Your task to perform on an android device: Go to Yahoo.com Image 0: 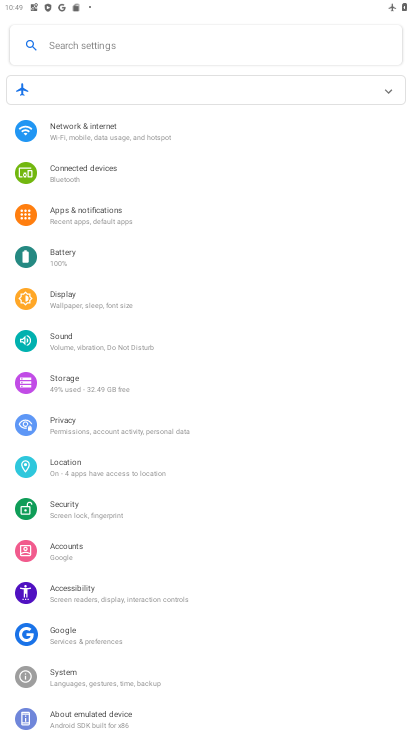
Step 0: press home button
Your task to perform on an android device: Go to Yahoo.com Image 1: 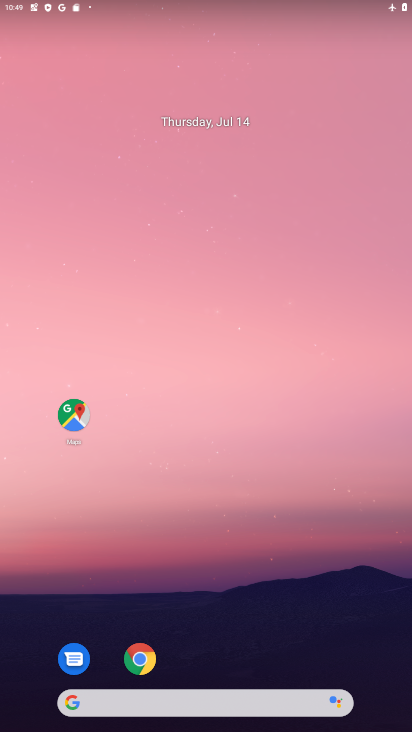
Step 1: drag from (320, 630) to (297, 192)
Your task to perform on an android device: Go to Yahoo.com Image 2: 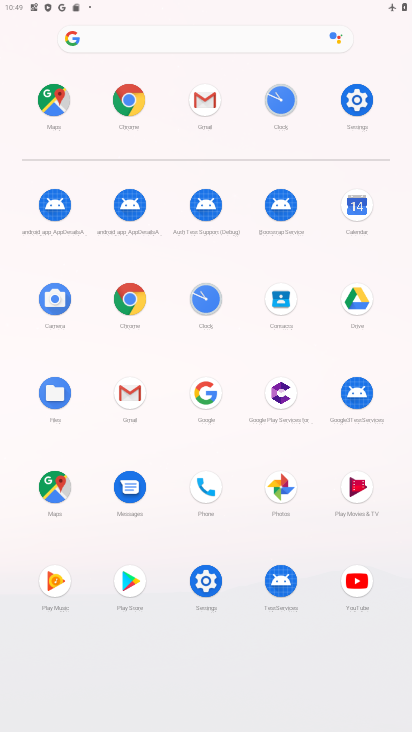
Step 2: click (128, 295)
Your task to perform on an android device: Go to Yahoo.com Image 3: 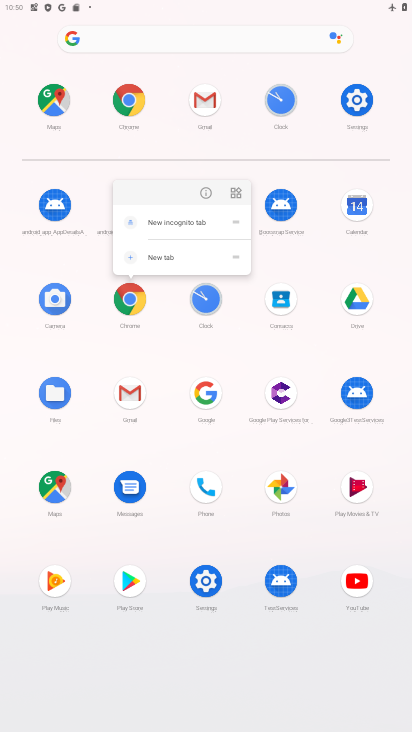
Step 3: click (128, 295)
Your task to perform on an android device: Go to Yahoo.com Image 4: 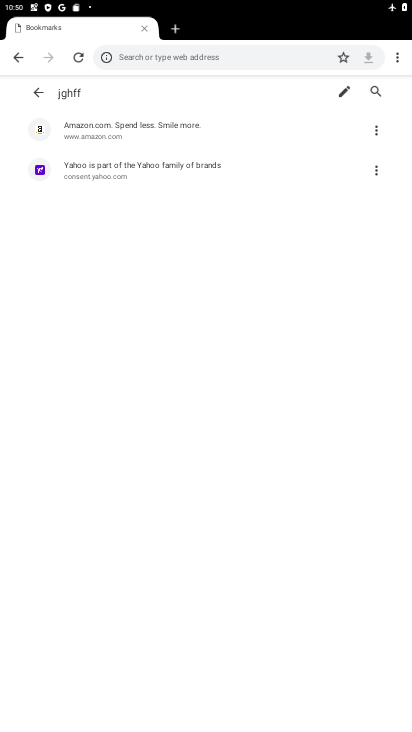
Step 4: click (212, 56)
Your task to perform on an android device: Go to Yahoo.com Image 5: 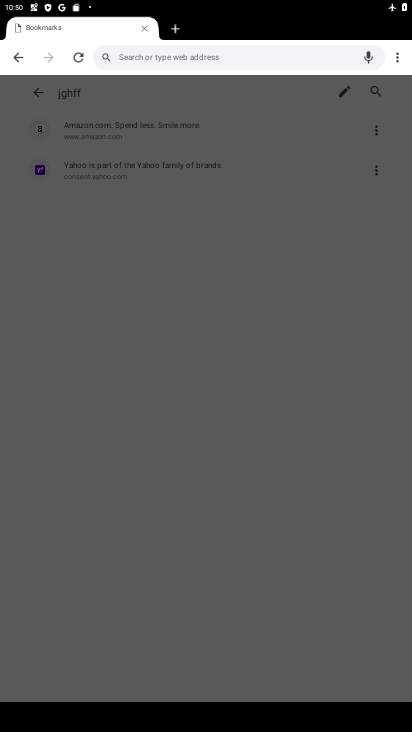
Step 5: type "yahoo.com"
Your task to perform on an android device: Go to Yahoo.com Image 6: 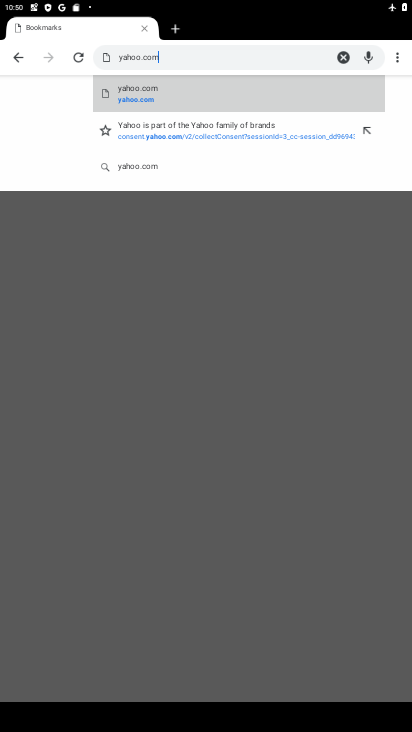
Step 6: click (144, 96)
Your task to perform on an android device: Go to Yahoo.com Image 7: 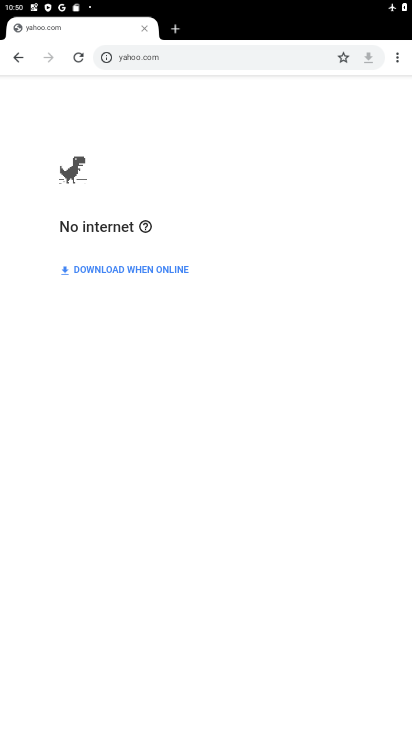
Step 7: task complete